Your task to perform on an android device: Go to display settings Image 0: 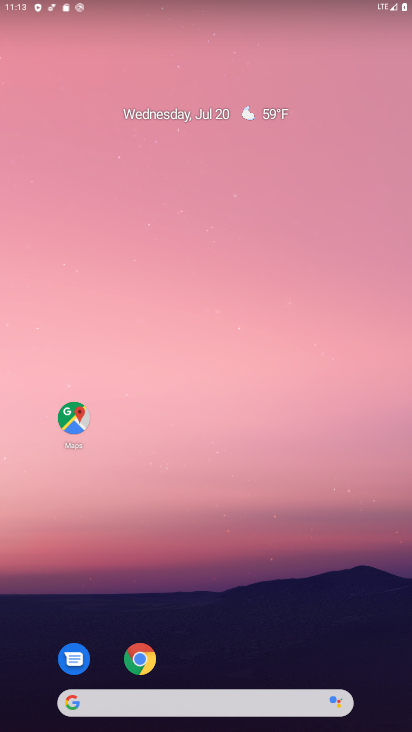
Step 0: drag from (223, 701) to (209, 200)
Your task to perform on an android device: Go to display settings Image 1: 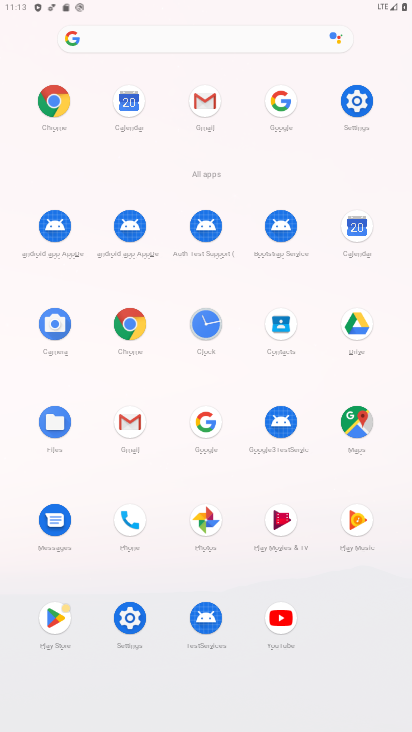
Step 1: click (362, 102)
Your task to perform on an android device: Go to display settings Image 2: 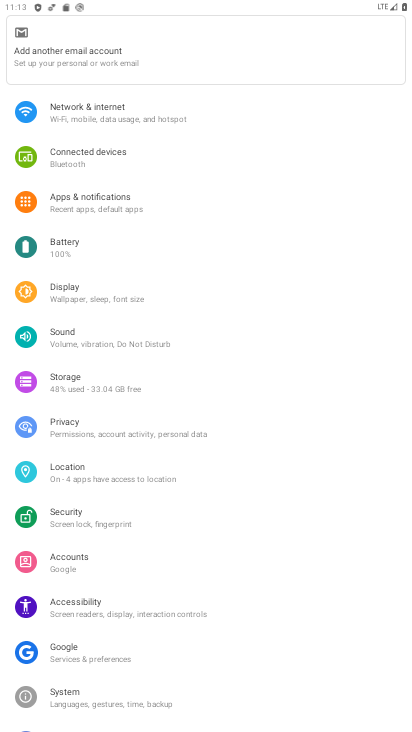
Step 2: click (73, 289)
Your task to perform on an android device: Go to display settings Image 3: 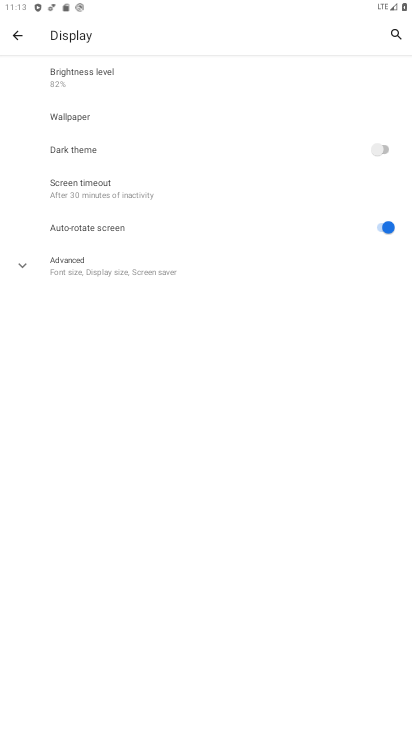
Step 3: task complete